Your task to perform on an android device: Show me popular games on the Play Store Image 0: 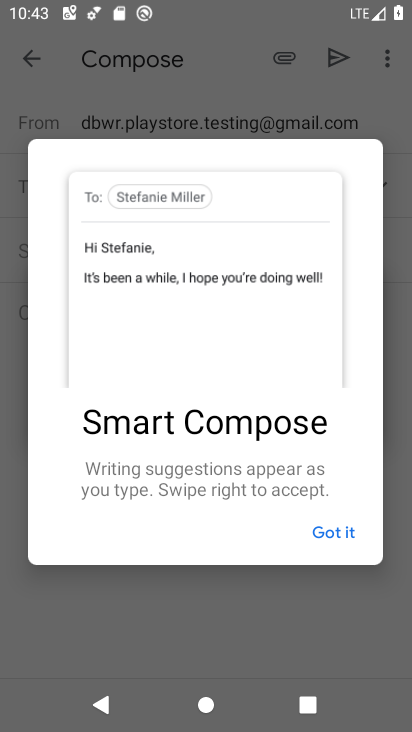
Step 0: press home button
Your task to perform on an android device: Show me popular games on the Play Store Image 1: 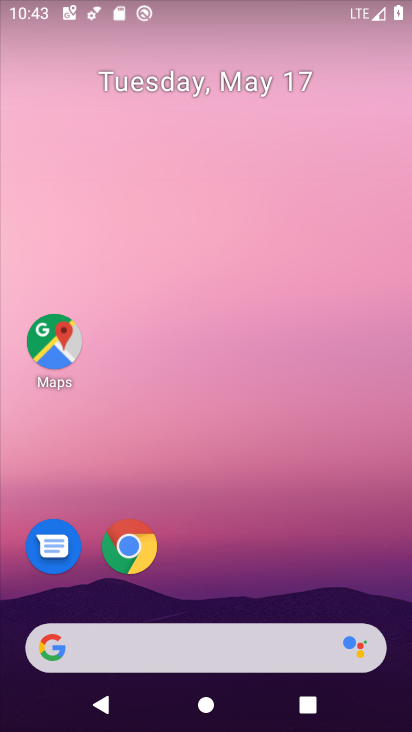
Step 1: drag from (226, 571) to (241, 1)
Your task to perform on an android device: Show me popular games on the Play Store Image 2: 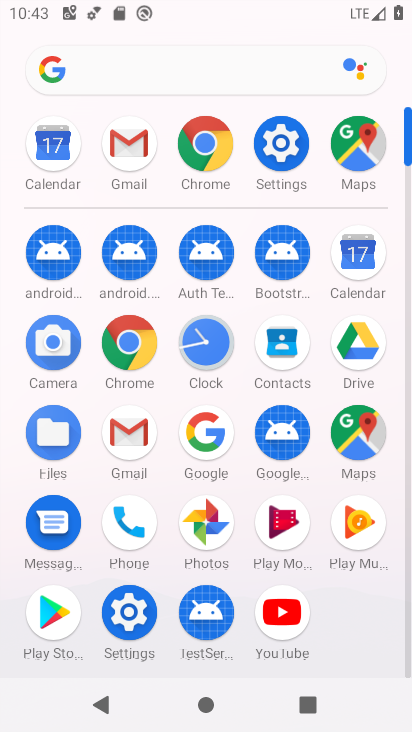
Step 2: click (54, 617)
Your task to perform on an android device: Show me popular games on the Play Store Image 3: 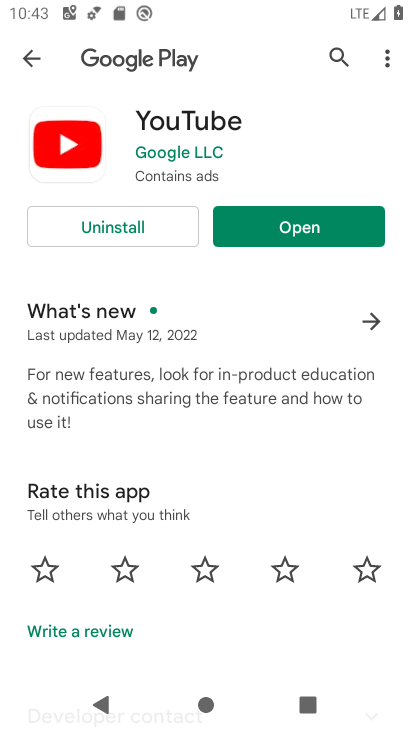
Step 3: click (33, 55)
Your task to perform on an android device: Show me popular games on the Play Store Image 4: 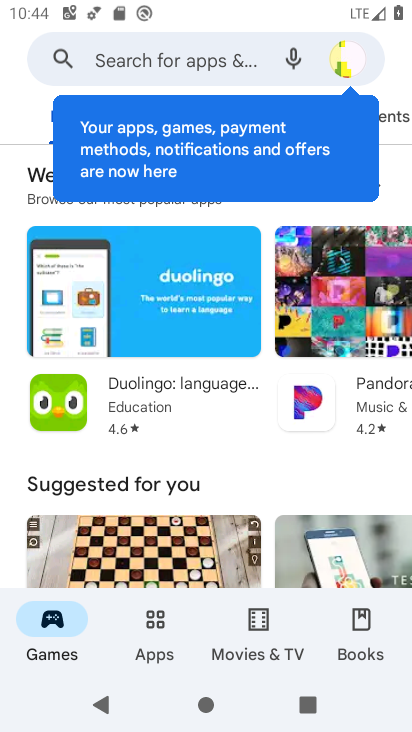
Step 4: click (32, 119)
Your task to perform on an android device: Show me popular games on the Play Store Image 5: 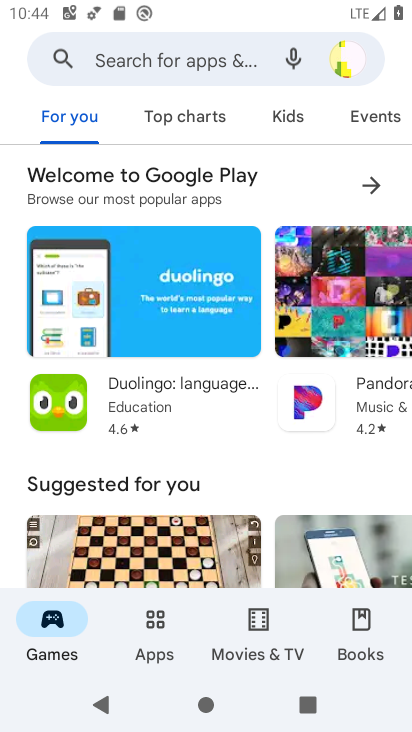
Step 5: click (193, 115)
Your task to perform on an android device: Show me popular games on the Play Store Image 6: 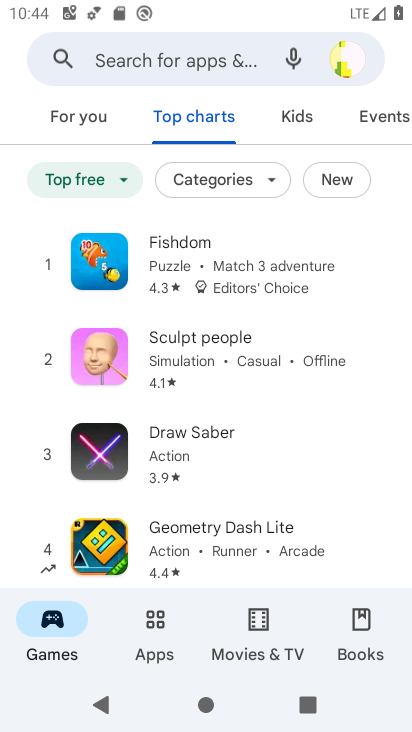
Step 6: task complete